Your task to perform on an android device: What's US dollar exchange rate against the South Korean Won? Image 0: 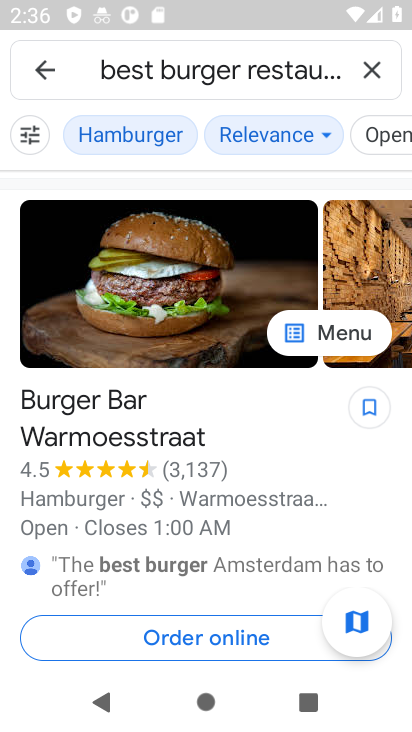
Step 0: press home button
Your task to perform on an android device: What's US dollar exchange rate against the South Korean Won? Image 1: 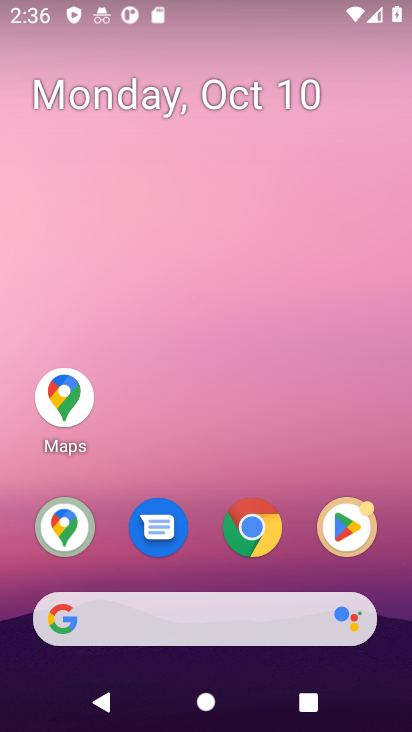
Step 1: click (257, 527)
Your task to perform on an android device: What's US dollar exchange rate against the South Korean Won? Image 2: 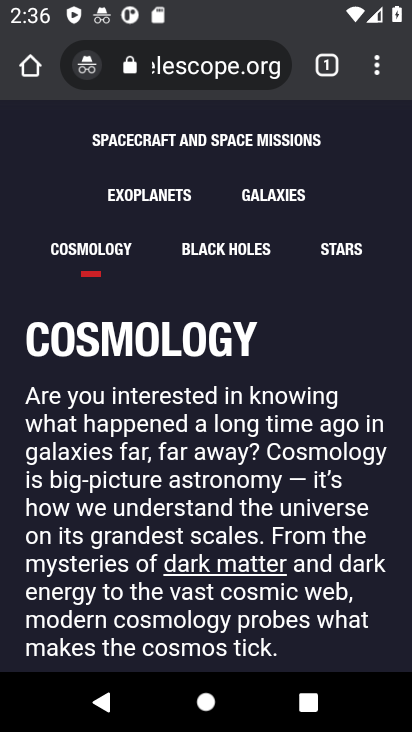
Step 2: click (215, 55)
Your task to perform on an android device: What's US dollar exchange rate against the South Korean Won? Image 3: 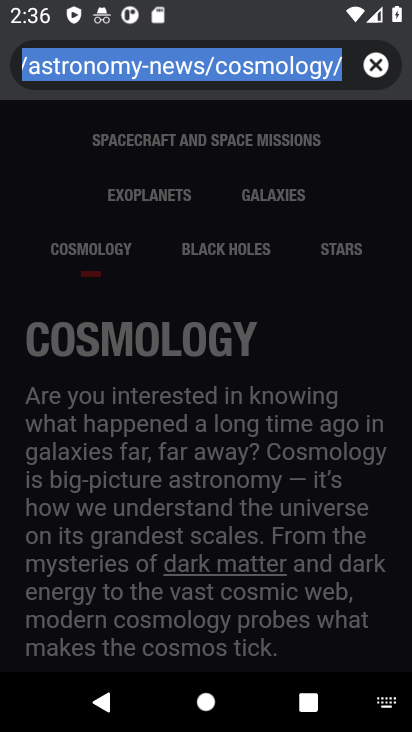
Step 3: click (379, 63)
Your task to perform on an android device: What's US dollar exchange rate against the South Korean Won? Image 4: 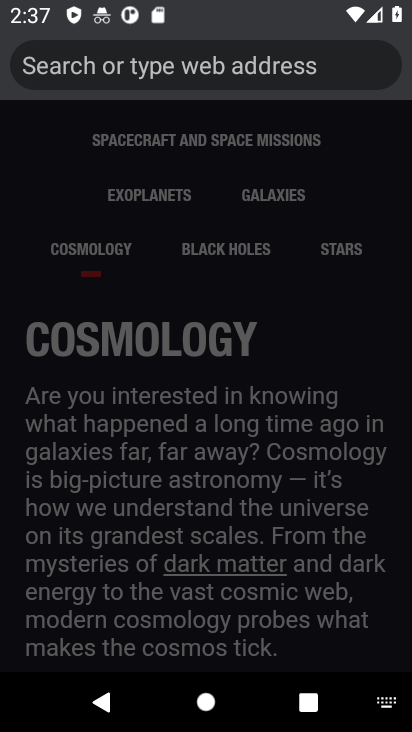
Step 4: type "What's US dollar exchange rate against the South Korean Won?"
Your task to perform on an android device: What's US dollar exchange rate against the South Korean Won? Image 5: 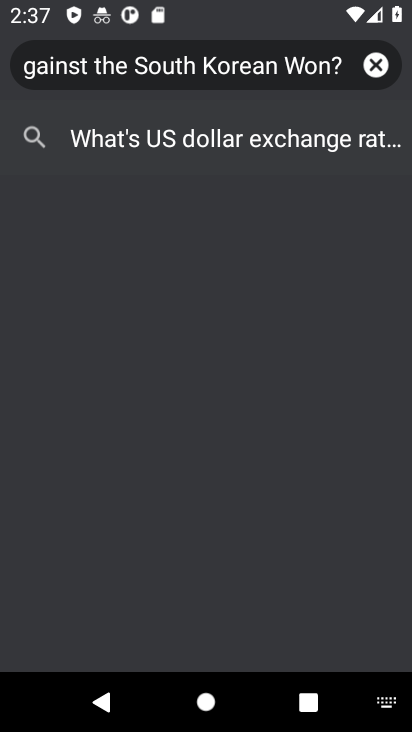
Step 5: click (288, 147)
Your task to perform on an android device: What's US dollar exchange rate against the South Korean Won? Image 6: 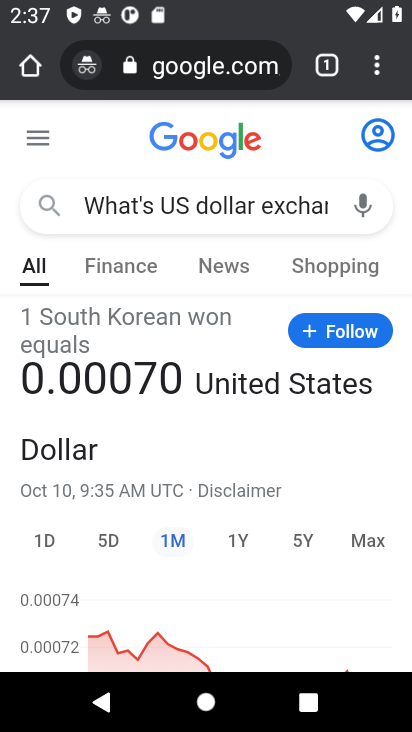
Step 6: task complete